Your task to perform on an android device: Play the last video I watched on Youtube Image 0: 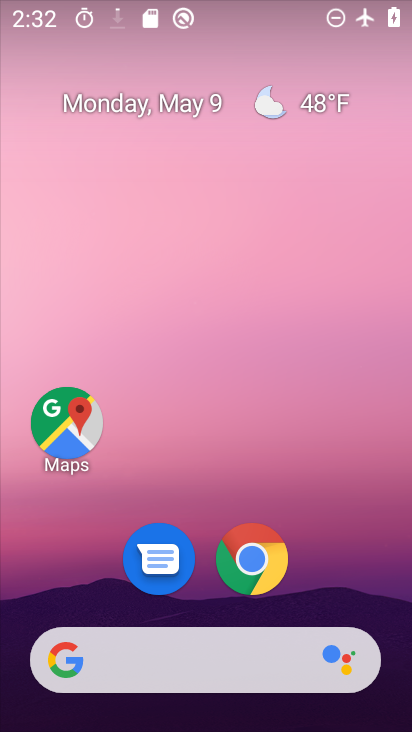
Step 0: drag from (204, 616) to (268, 62)
Your task to perform on an android device: Play the last video I watched on Youtube Image 1: 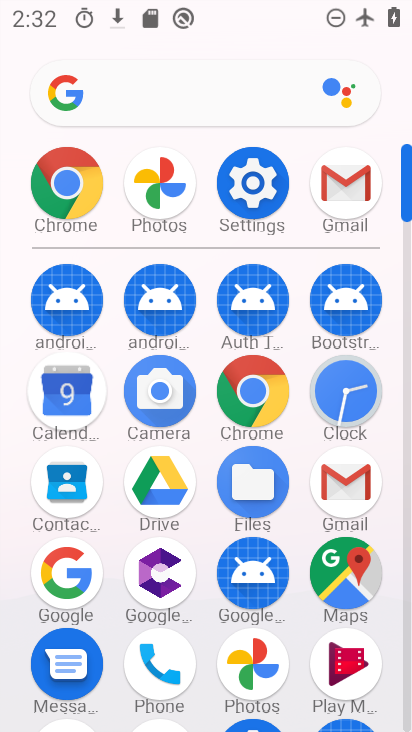
Step 1: drag from (204, 706) to (208, 226)
Your task to perform on an android device: Play the last video I watched on Youtube Image 2: 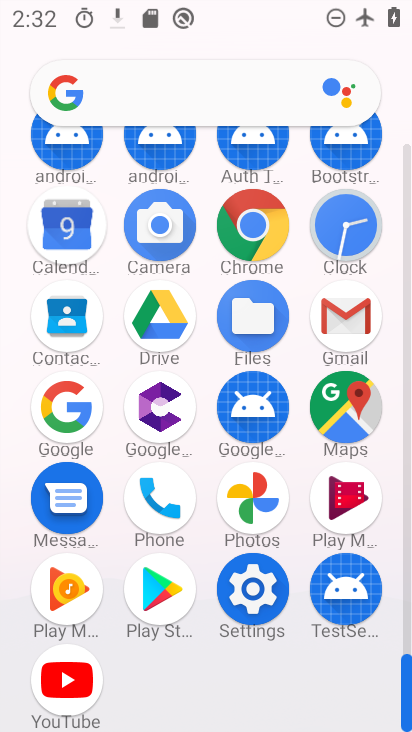
Step 2: click (57, 668)
Your task to perform on an android device: Play the last video I watched on Youtube Image 3: 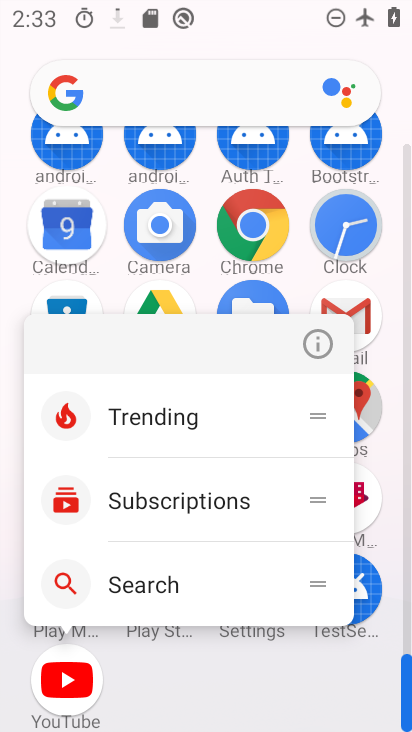
Step 3: click (311, 341)
Your task to perform on an android device: Play the last video I watched on Youtube Image 4: 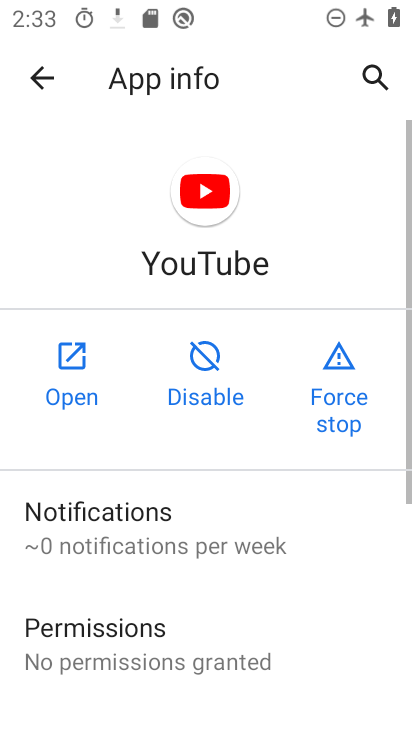
Step 4: click (65, 364)
Your task to perform on an android device: Play the last video I watched on Youtube Image 5: 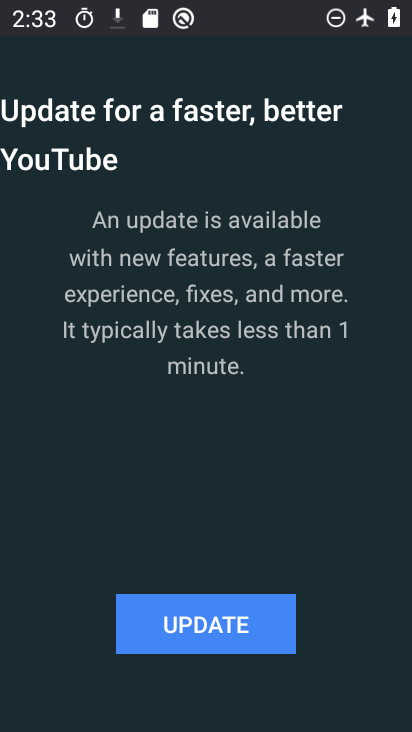
Step 5: task complete